Your task to perform on an android device: What's the weather going to be this weekend? Image 0: 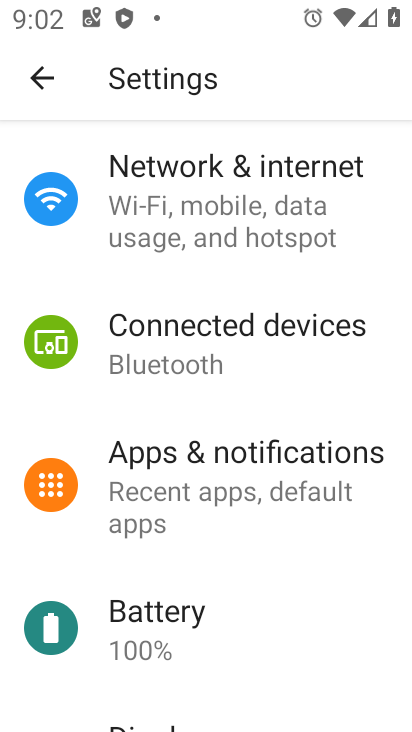
Step 0: press home button
Your task to perform on an android device: What's the weather going to be this weekend? Image 1: 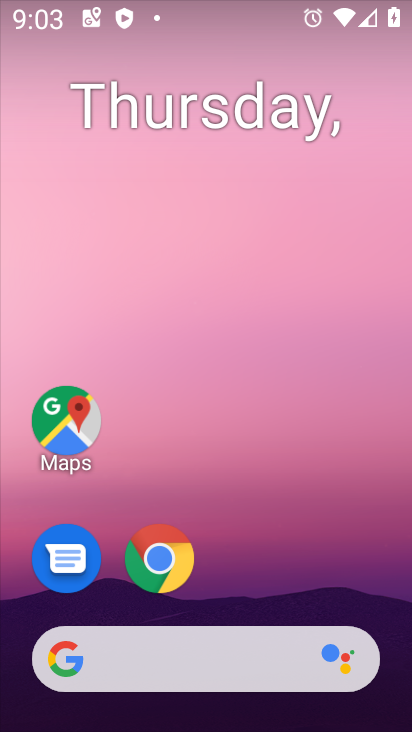
Step 1: click (218, 665)
Your task to perform on an android device: What's the weather going to be this weekend? Image 2: 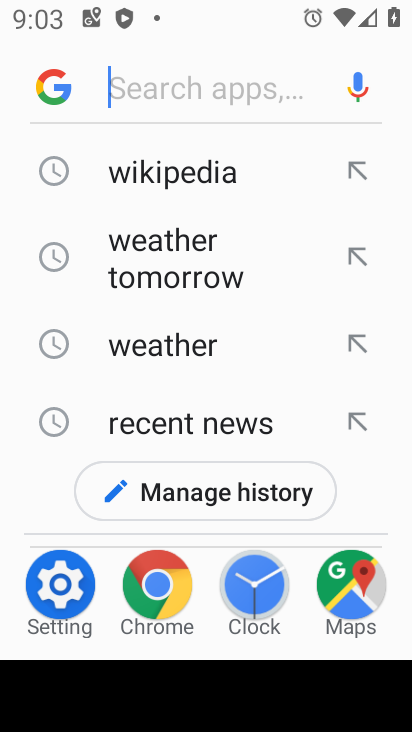
Step 2: type "weather"
Your task to perform on an android device: What's the weather going to be this weekend? Image 3: 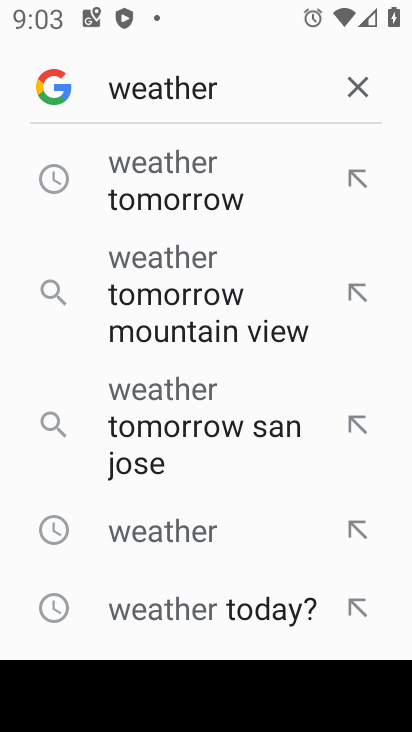
Step 3: click (225, 528)
Your task to perform on an android device: What's the weather going to be this weekend? Image 4: 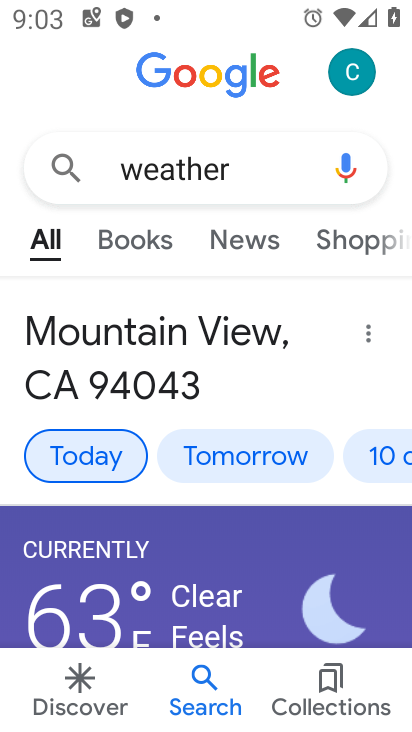
Step 4: click (400, 455)
Your task to perform on an android device: What's the weather going to be this weekend? Image 5: 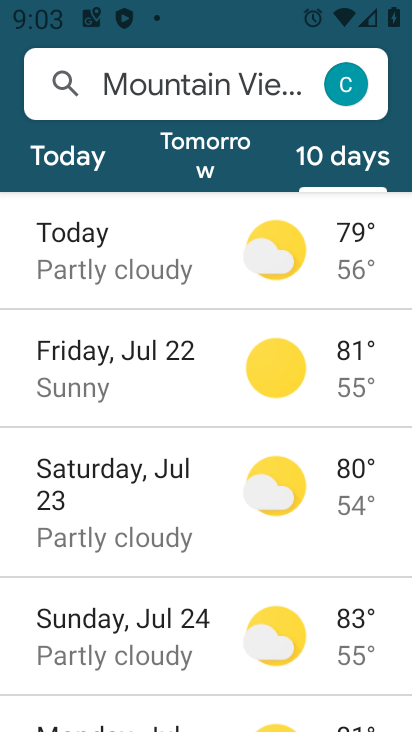
Step 5: click (224, 487)
Your task to perform on an android device: What's the weather going to be this weekend? Image 6: 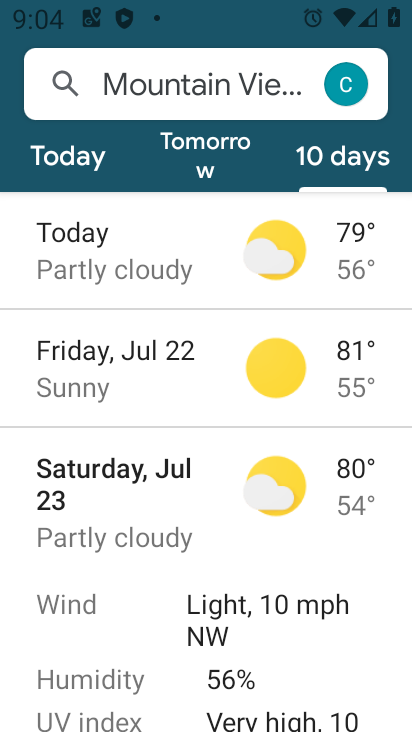
Step 6: task complete